Your task to perform on an android device: Show me recent news Image 0: 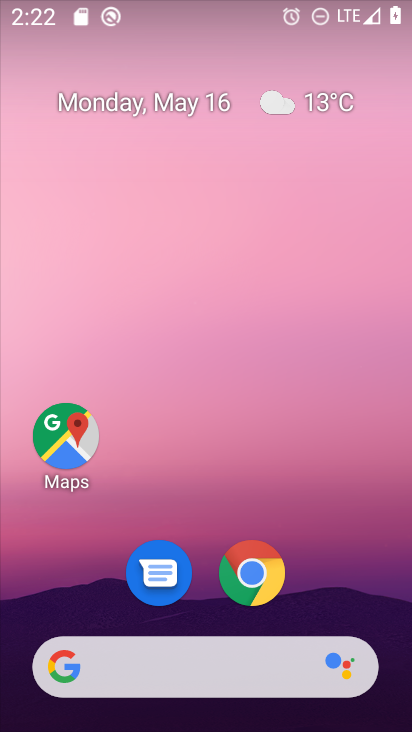
Step 0: click (200, 674)
Your task to perform on an android device: Show me recent news Image 1: 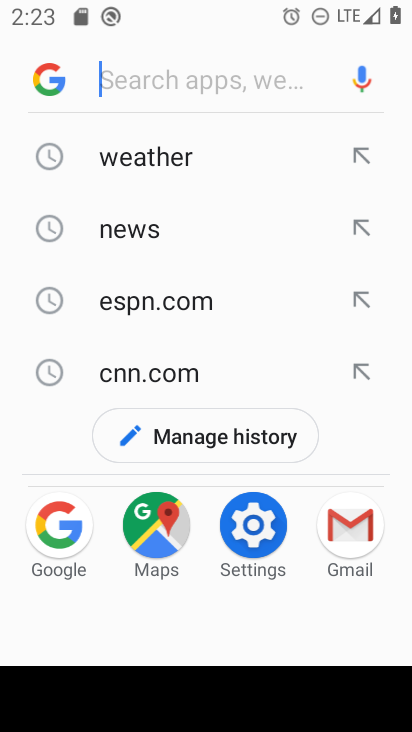
Step 1: task complete